Your task to perform on an android device: Go to Maps Image 0: 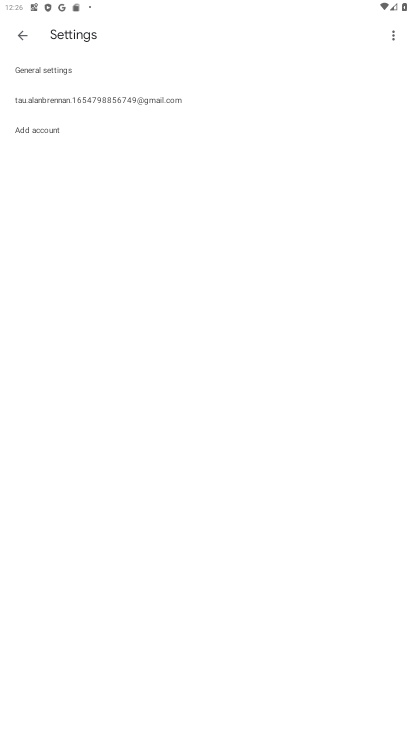
Step 0: press home button
Your task to perform on an android device: Go to Maps Image 1: 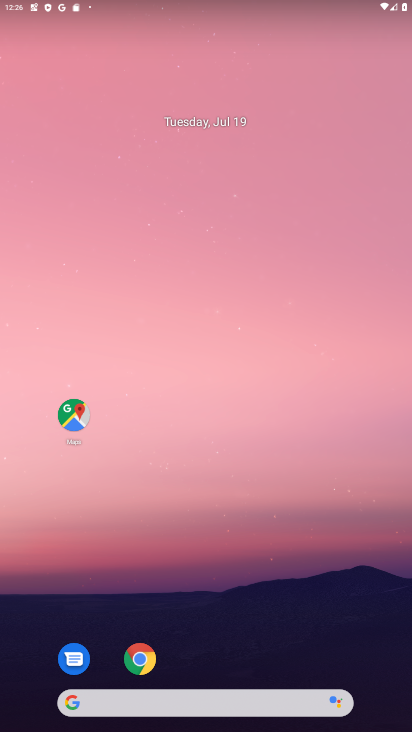
Step 1: click (73, 417)
Your task to perform on an android device: Go to Maps Image 2: 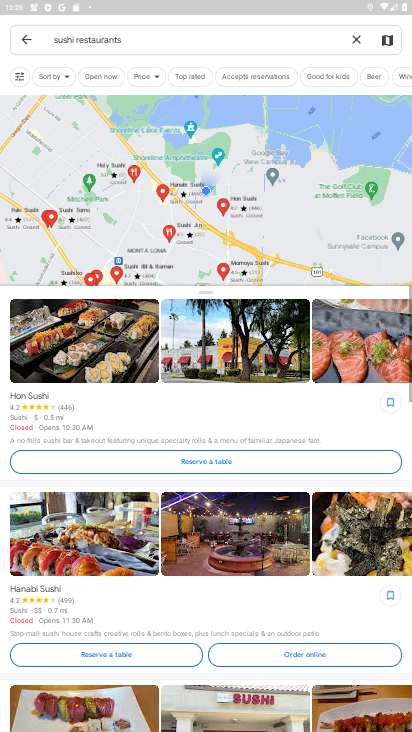
Step 2: click (360, 38)
Your task to perform on an android device: Go to Maps Image 3: 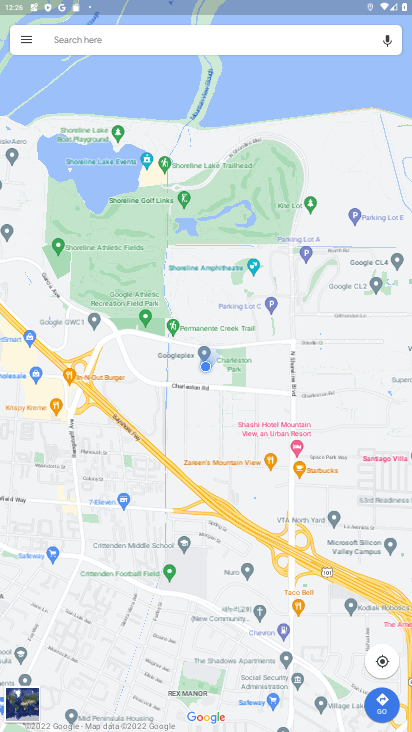
Step 3: task complete